Your task to perform on an android device: Open sound settings Image 0: 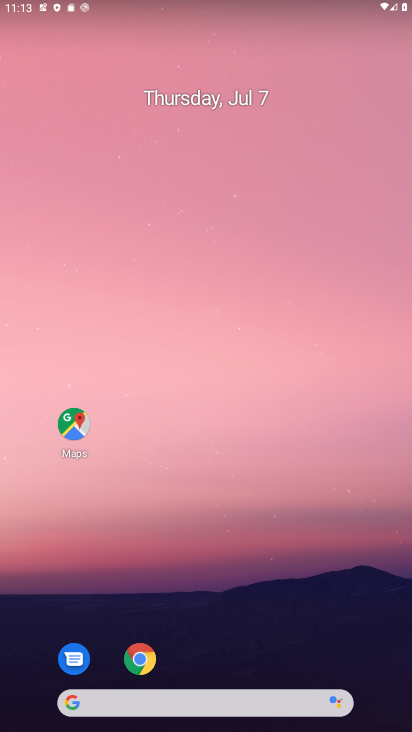
Step 0: press home button
Your task to perform on an android device: Open sound settings Image 1: 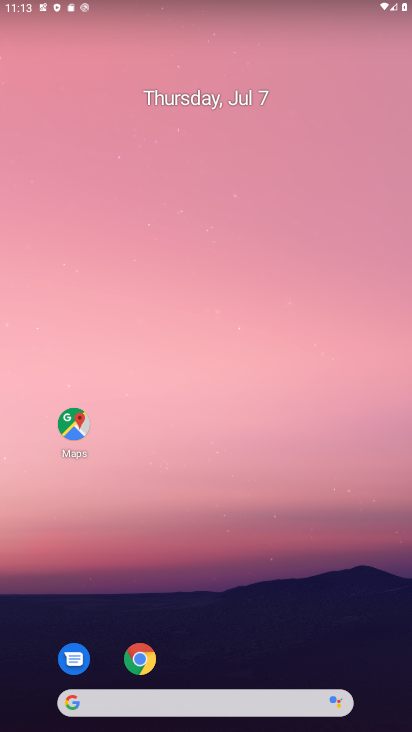
Step 1: drag from (221, 662) to (256, 5)
Your task to perform on an android device: Open sound settings Image 2: 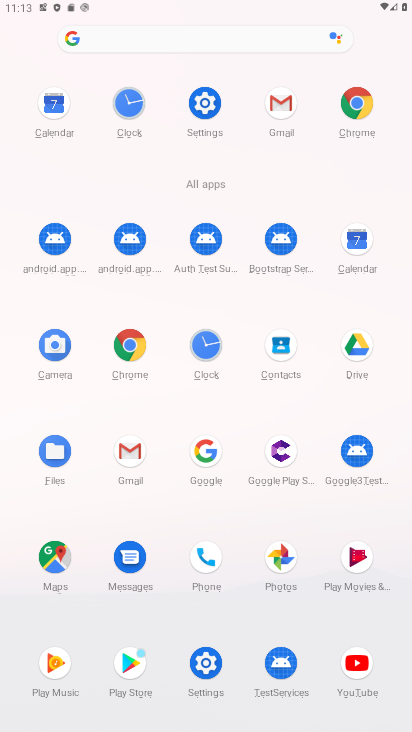
Step 2: click (203, 91)
Your task to perform on an android device: Open sound settings Image 3: 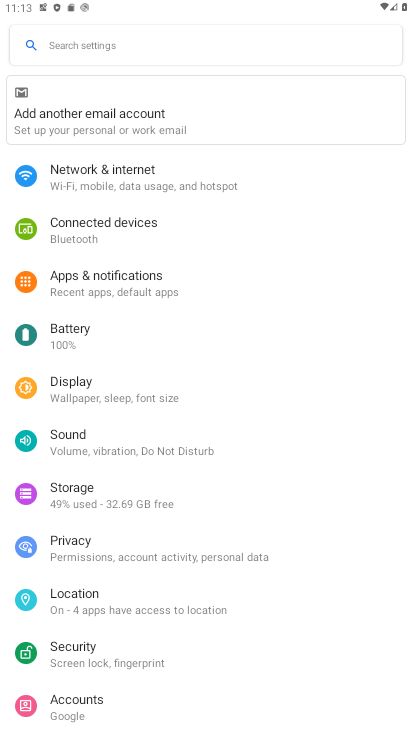
Step 3: click (106, 429)
Your task to perform on an android device: Open sound settings Image 4: 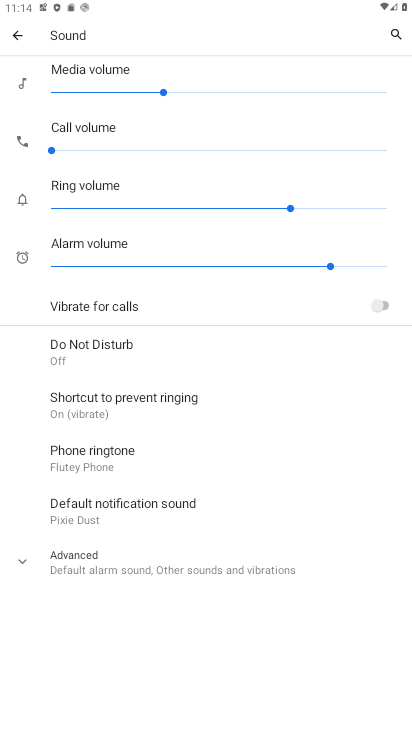
Step 4: task complete